Your task to perform on an android device: empty trash in the gmail app Image 0: 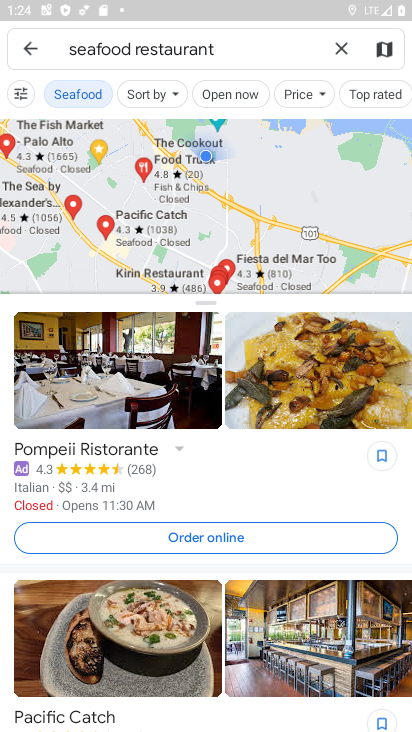
Step 0: press home button
Your task to perform on an android device: empty trash in the gmail app Image 1: 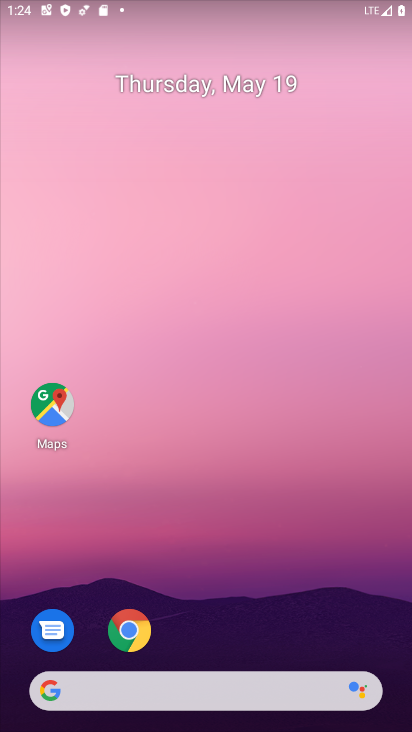
Step 1: drag from (245, 668) to (184, 14)
Your task to perform on an android device: empty trash in the gmail app Image 2: 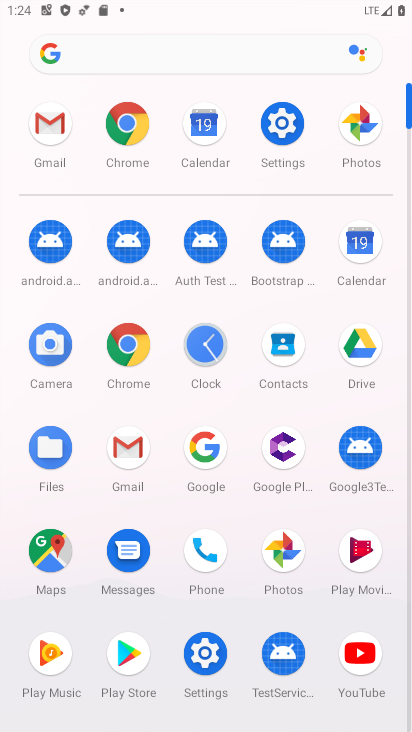
Step 2: click (131, 454)
Your task to perform on an android device: empty trash in the gmail app Image 3: 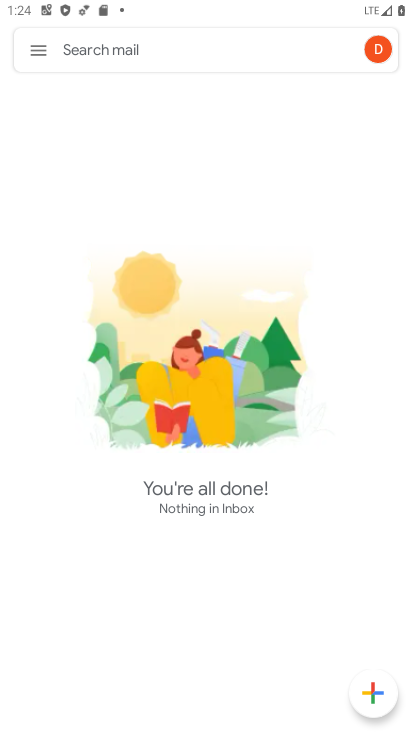
Step 3: click (40, 50)
Your task to perform on an android device: empty trash in the gmail app Image 4: 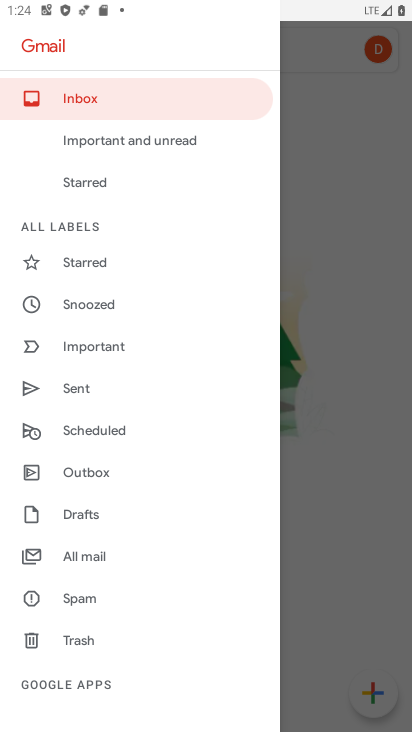
Step 4: click (82, 629)
Your task to perform on an android device: empty trash in the gmail app Image 5: 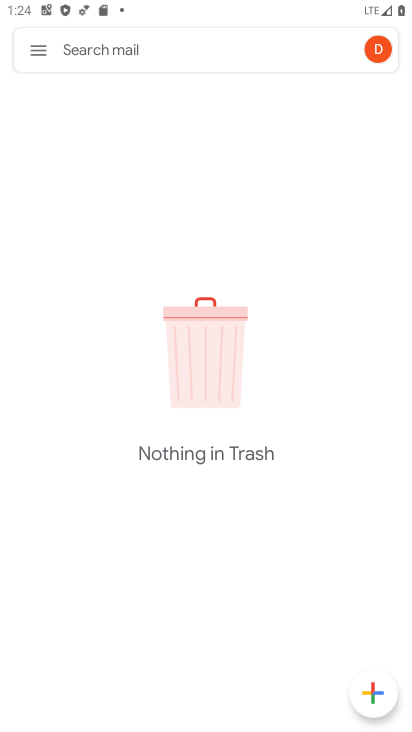
Step 5: task complete